Your task to perform on an android device: clear history in the chrome app Image 0: 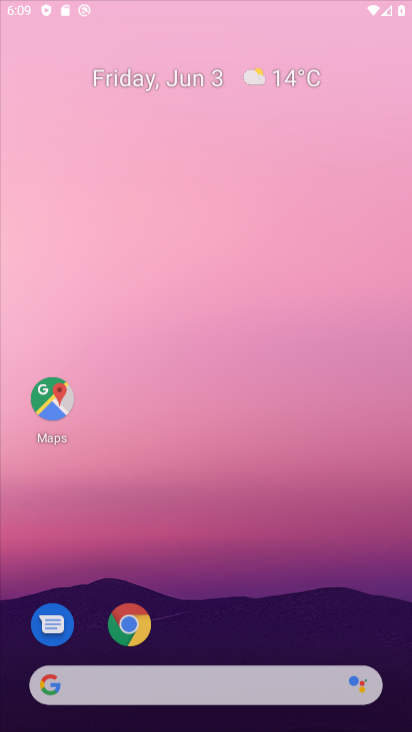
Step 0: click (226, 11)
Your task to perform on an android device: clear history in the chrome app Image 1: 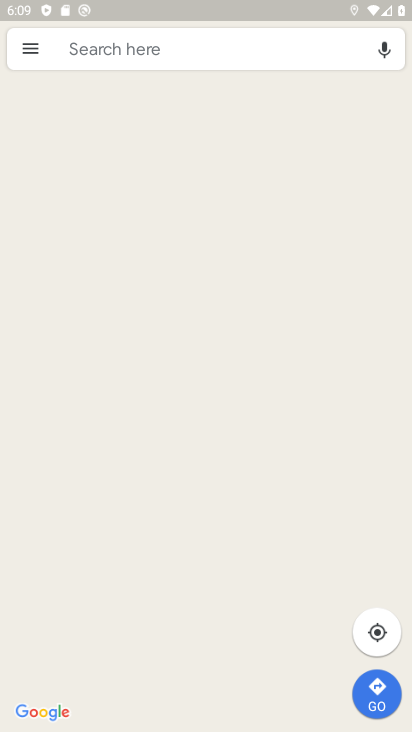
Step 1: press home button
Your task to perform on an android device: clear history in the chrome app Image 2: 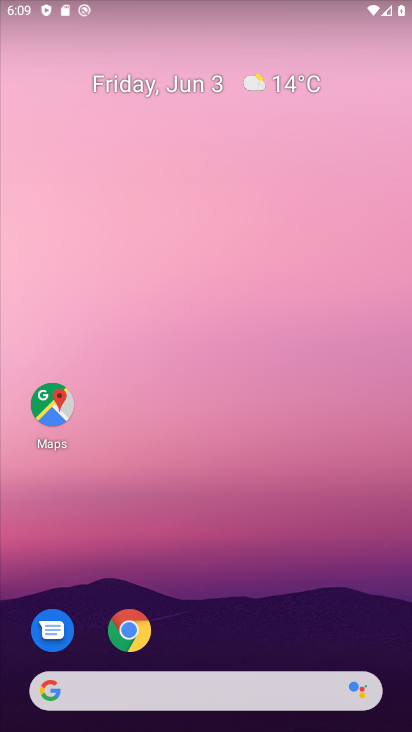
Step 2: click (129, 638)
Your task to perform on an android device: clear history in the chrome app Image 3: 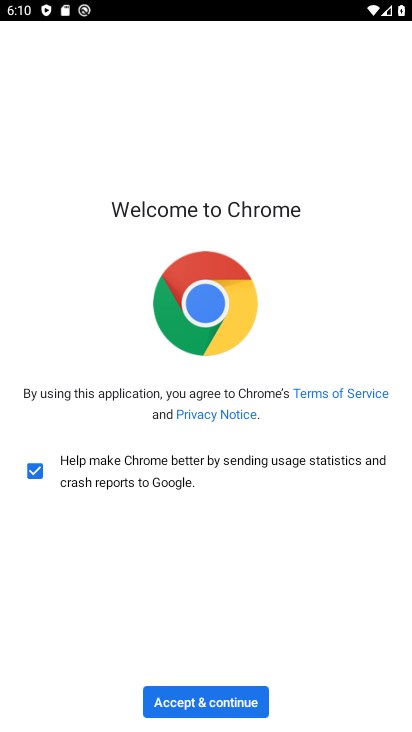
Step 3: click (183, 706)
Your task to perform on an android device: clear history in the chrome app Image 4: 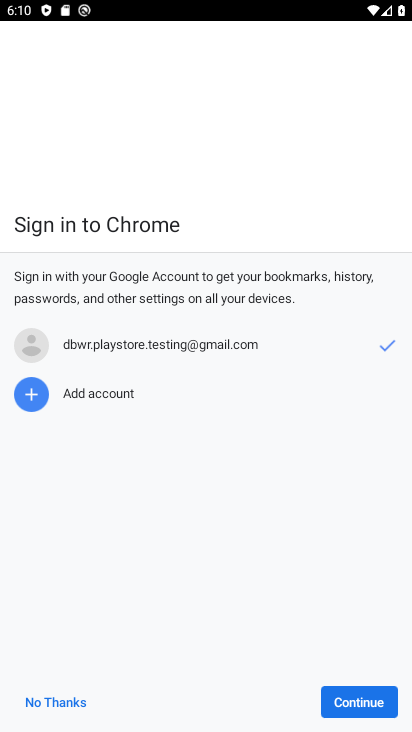
Step 4: click (356, 713)
Your task to perform on an android device: clear history in the chrome app Image 5: 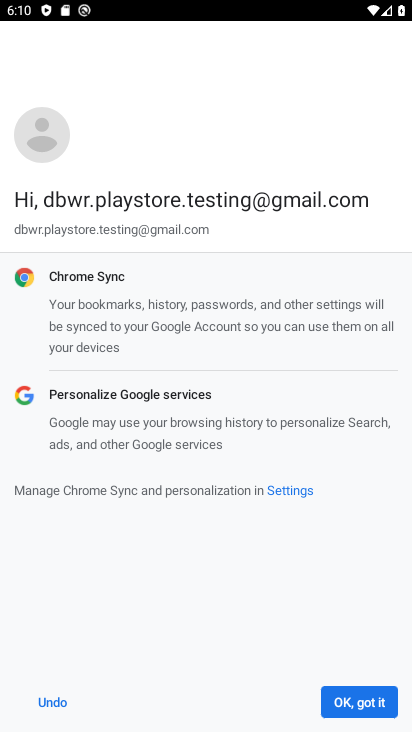
Step 5: click (357, 713)
Your task to perform on an android device: clear history in the chrome app Image 6: 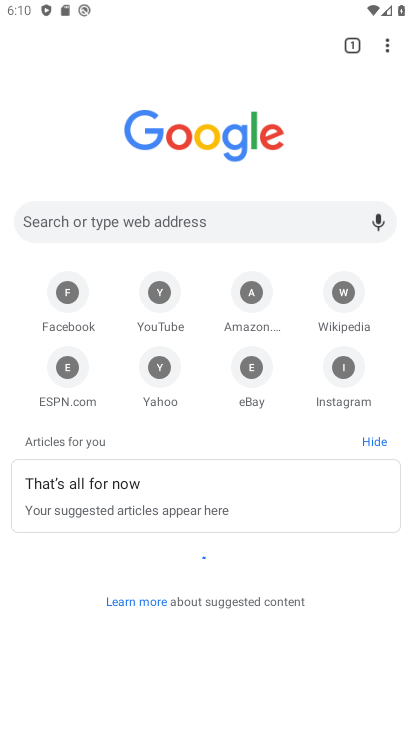
Step 6: click (384, 50)
Your task to perform on an android device: clear history in the chrome app Image 7: 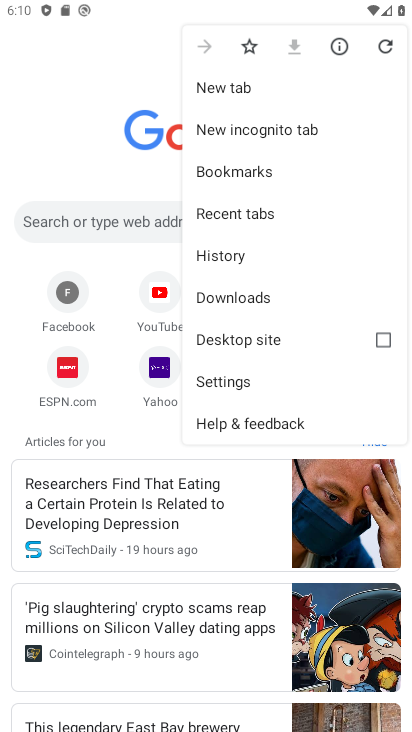
Step 7: click (220, 265)
Your task to perform on an android device: clear history in the chrome app Image 8: 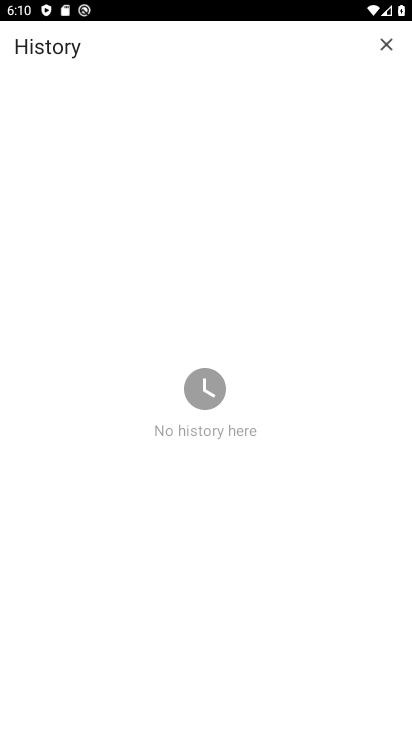
Step 8: task complete